Your task to perform on an android device: What is the recent news? Image 0: 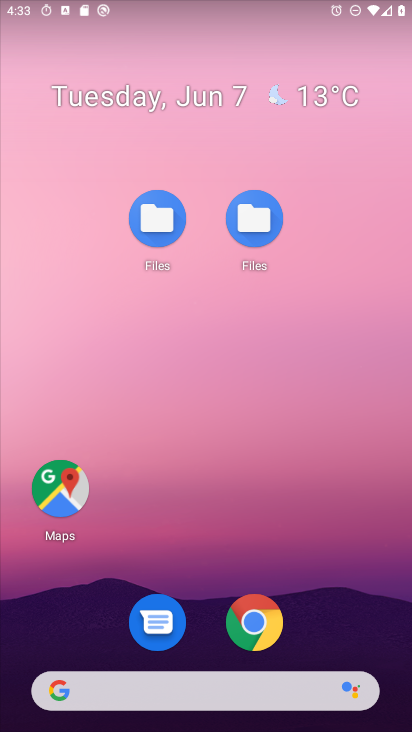
Step 0: click (251, 675)
Your task to perform on an android device: What is the recent news? Image 1: 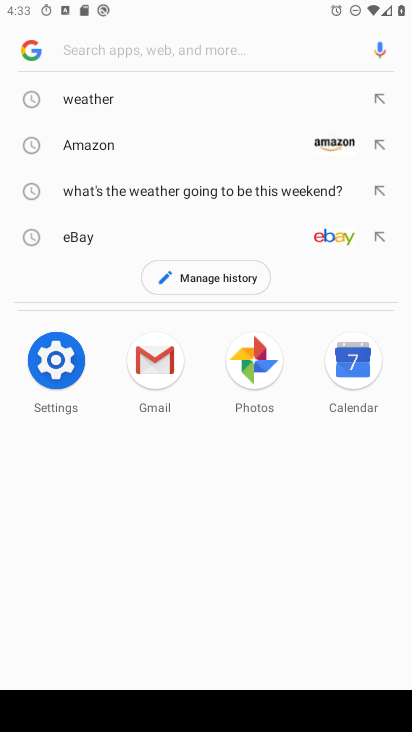
Step 1: click (134, 45)
Your task to perform on an android device: What is the recent news? Image 2: 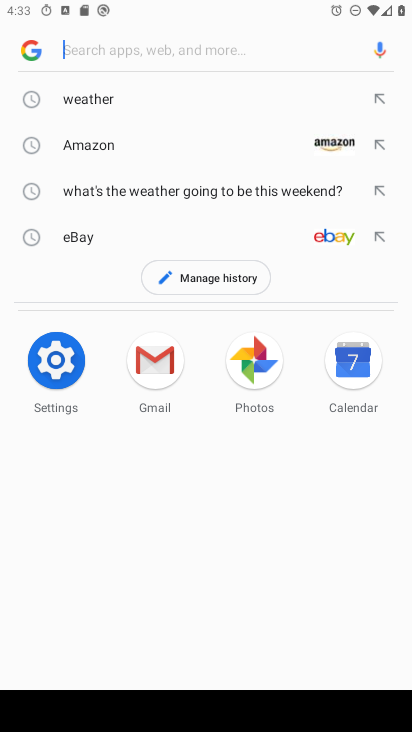
Step 2: type "recent news"
Your task to perform on an android device: What is the recent news? Image 3: 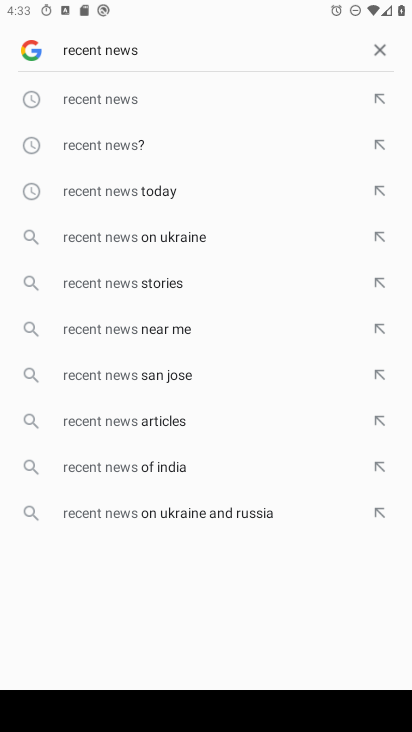
Step 3: click (154, 92)
Your task to perform on an android device: What is the recent news? Image 4: 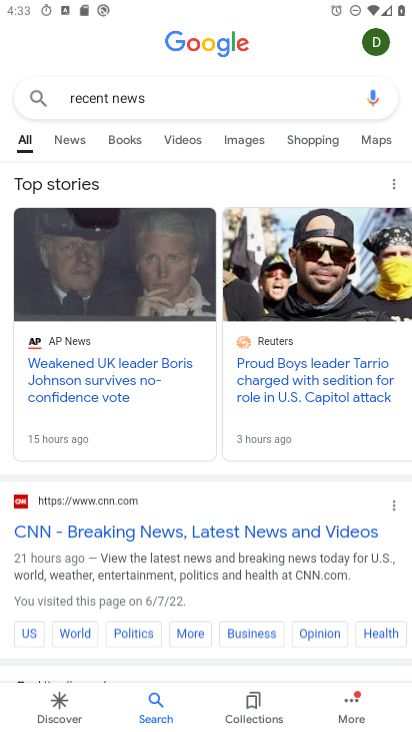
Step 4: task complete